Your task to perform on an android device: Open Google Maps Image 0: 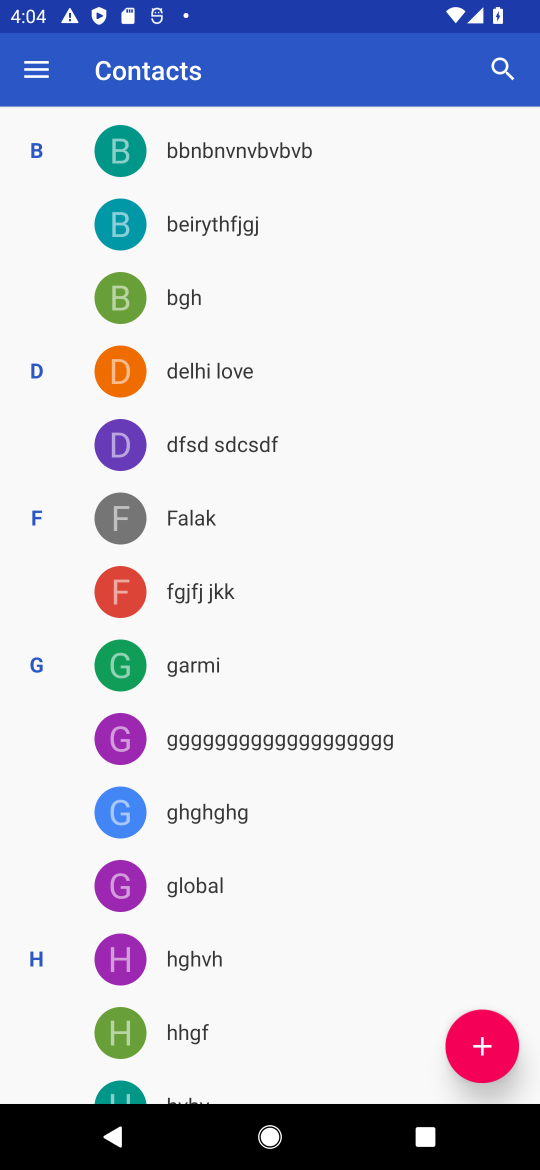
Step 0: press home button
Your task to perform on an android device: Open Google Maps Image 1: 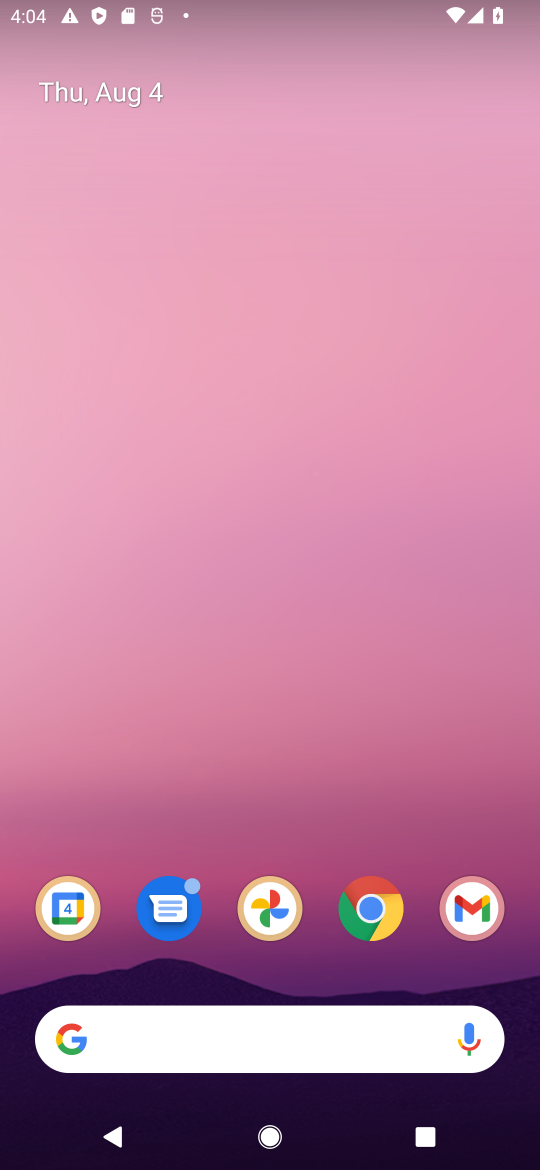
Step 1: drag from (208, 957) to (394, 114)
Your task to perform on an android device: Open Google Maps Image 2: 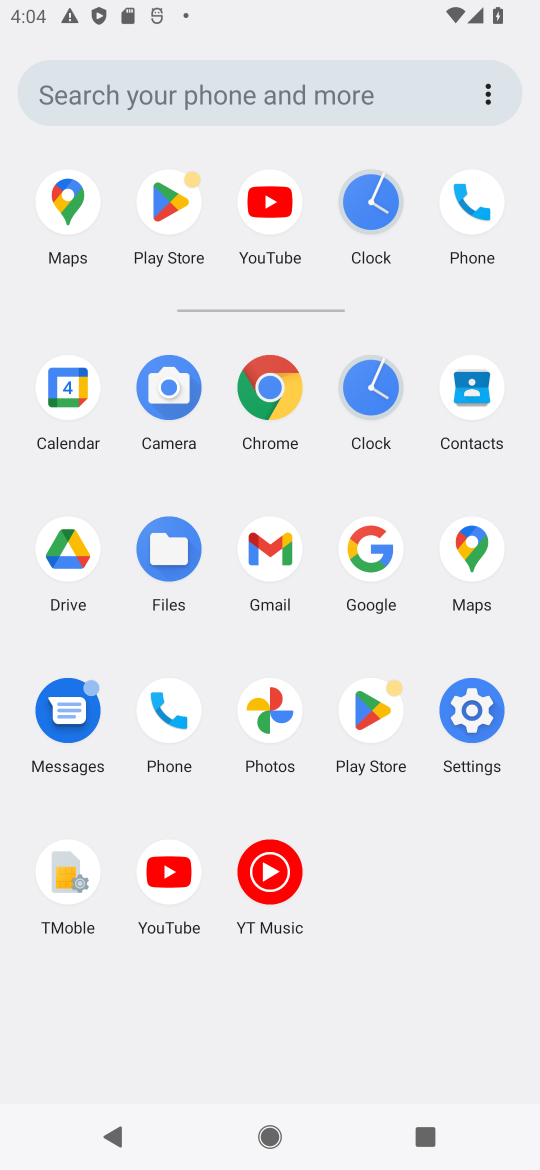
Step 2: click (491, 565)
Your task to perform on an android device: Open Google Maps Image 3: 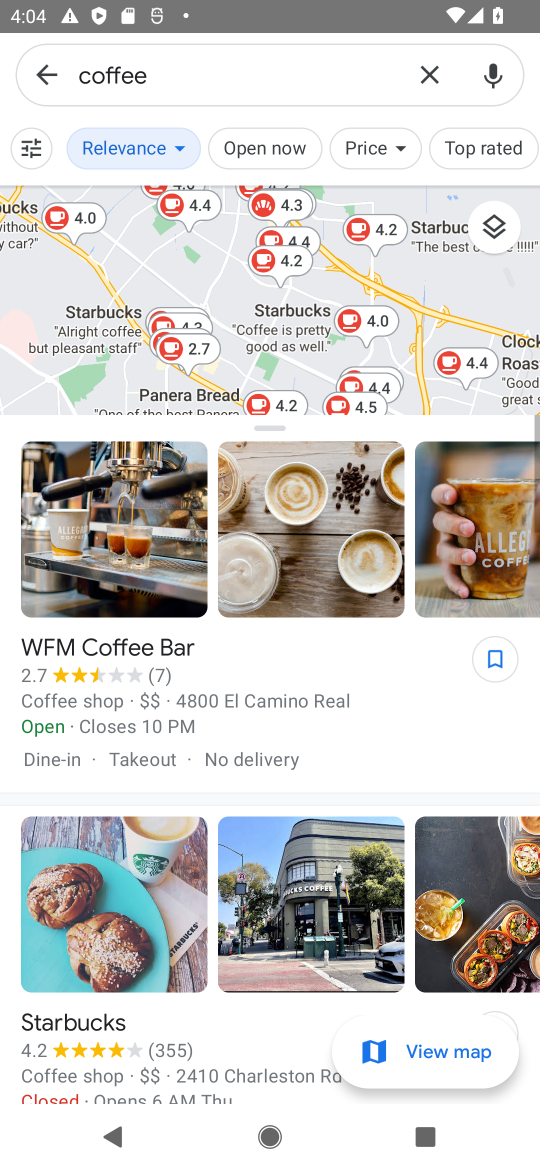
Step 3: task complete